Your task to perform on an android device: Go to battery settings Image 0: 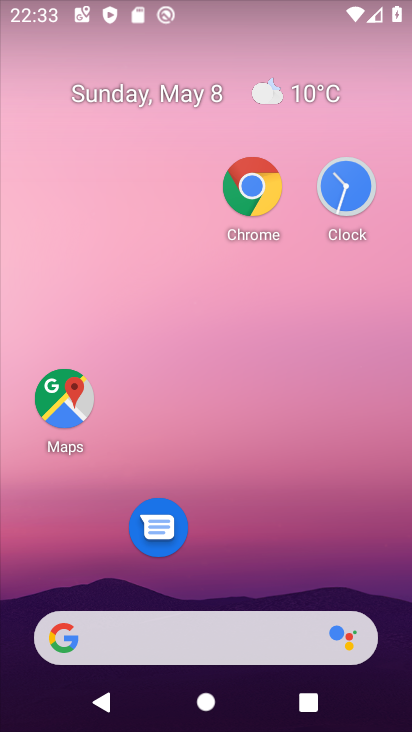
Step 0: drag from (260, 551) to (268, 119)
Your task to perform on an android device: Go to battery settings Image 1: 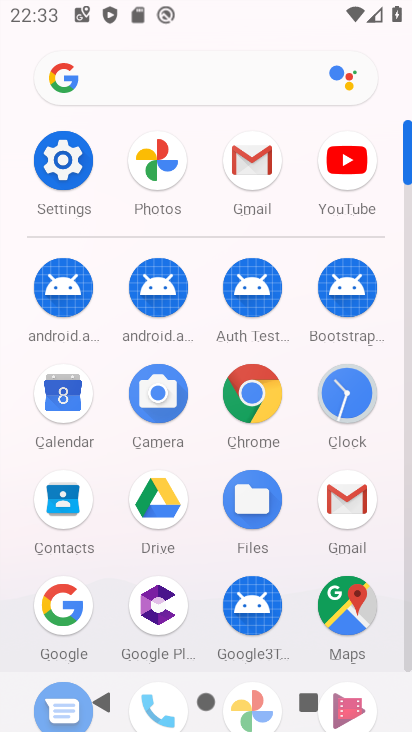
Step 1: click (62, 167)
Your task to perform on an android device: Go to battery settings Image 2: 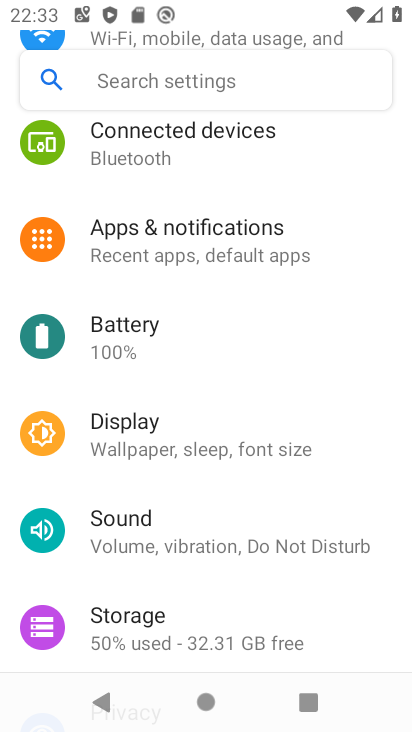
Step 2: drag from (247, 585) to (259, 216)
Your task to perform on an android device: Go to battery settings Image 3: 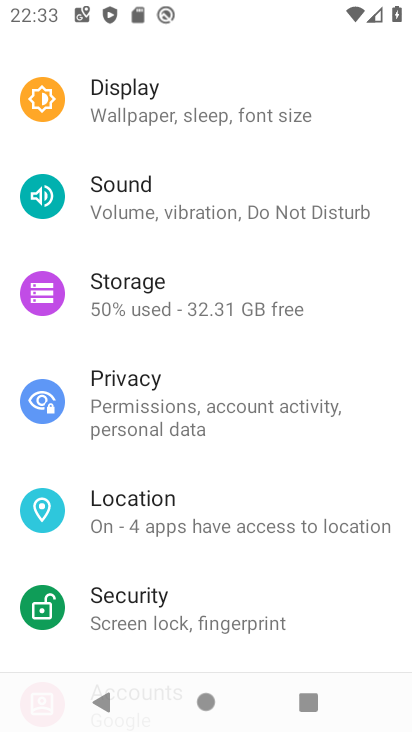
Step 3: drag from (268, 309) to (277, 176)
Your task to perform on an android device: Go to battery settings Image 4: 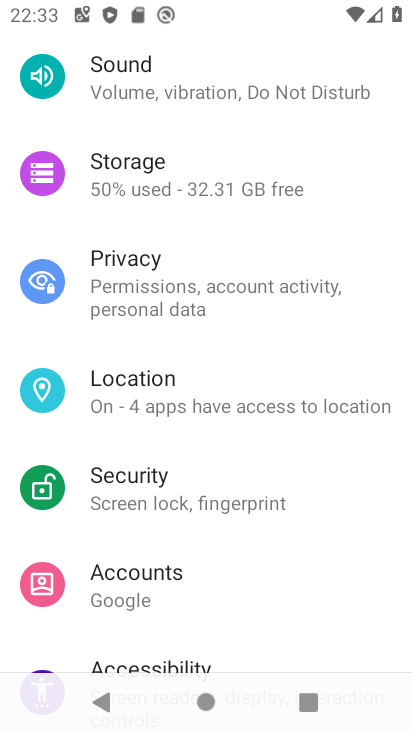
Step 4: drag from (277, 207) to (280, 609)
Your task to perform on an android device: Go to battery settings Image 5: 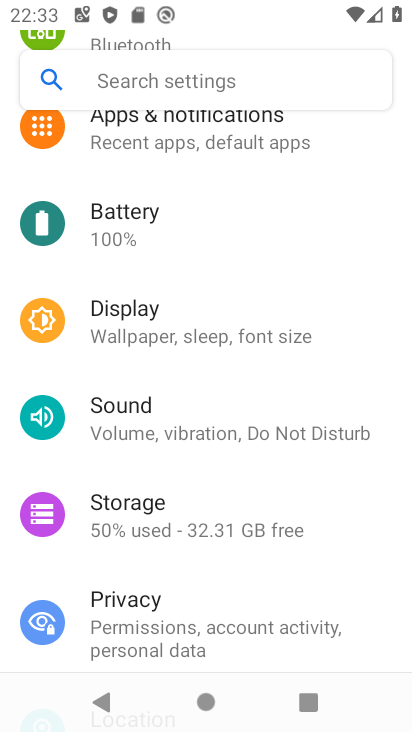
Step 5: click (163, 203)
Your task to perform on an android device: Go to battery settings Image 6: 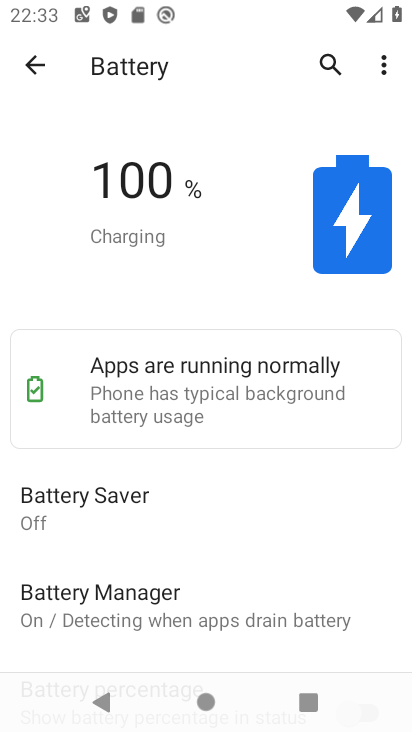
Step 6: task complete